Your task to perform on an android device: toggle show notifications on the lock screen Image 0: 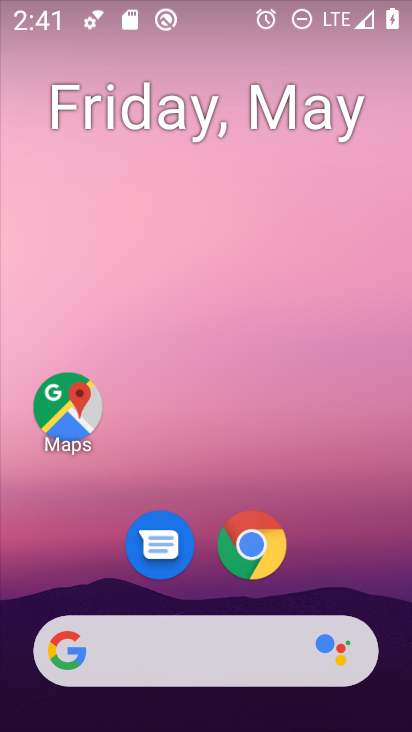
Step 0: drag from (333, 566) to (282, 284)
Your task to perform on an android device: toggle show notifications on the lock screen Image 1: 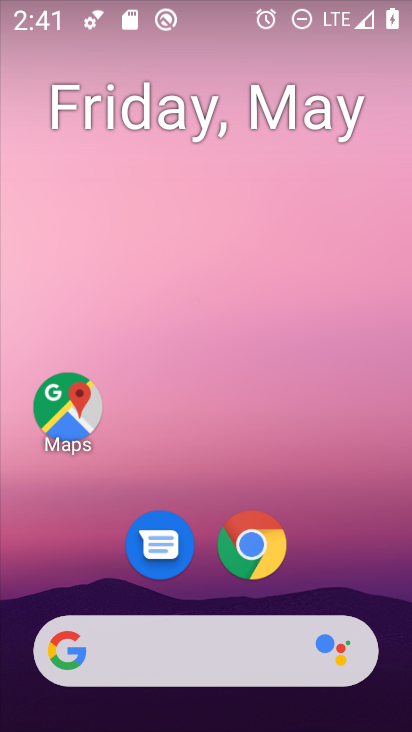
Step 1: drag from (322, 535) to (287, 204)
Your task to perform on an android device: toggle show notifications on the lock screen Image 2: 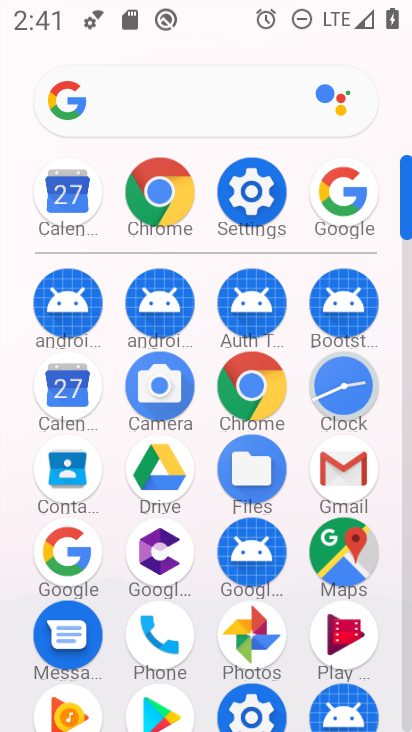
Step 2: click (236, 195)
Your task to perform on an android device: toggle show notifications on the lock screen Image 3: 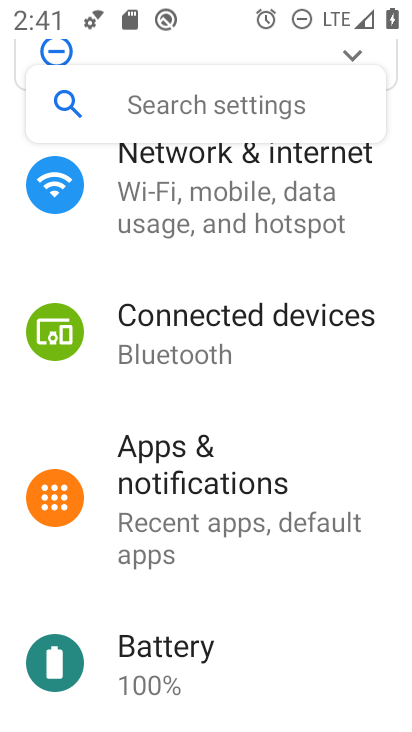
Step 3: drag from (236, 197) to (264, 263)
Your task to perform on an android device: toggle show notifications on the lock screen Image 4: 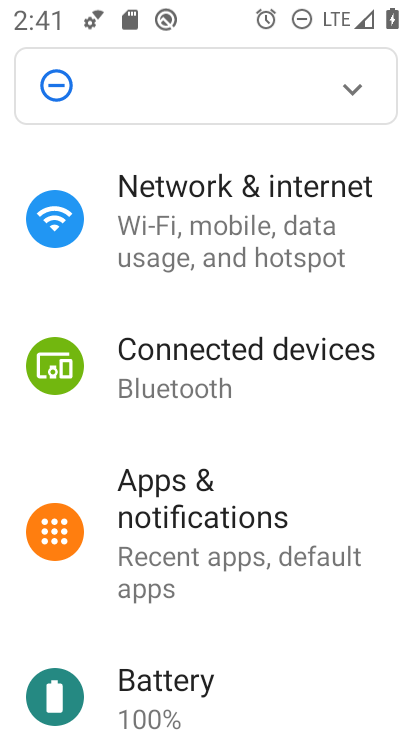
Step 4: click (179, 516)
Your task to perform on an android device: toggle show notifications on the lock screen Image 5: 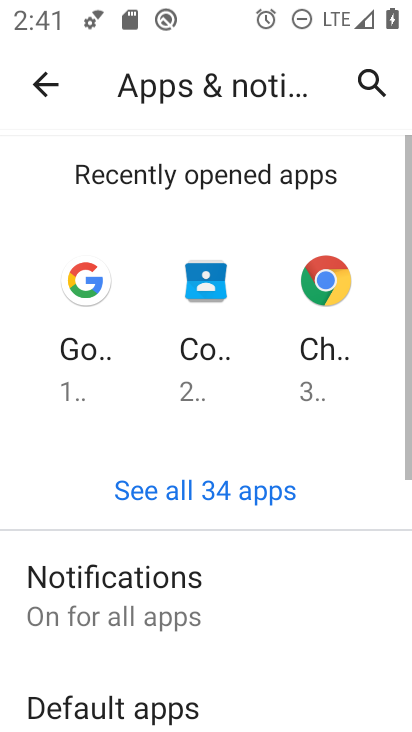
Step 5: click (155, 587)
Your task to perform on an android device: toggle show notifications on the lock screen Image 6: 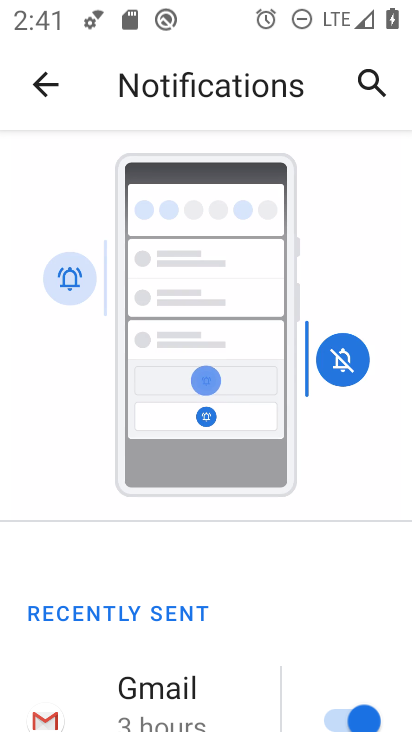
Step 6: drag from (258, 615) to (234, 208)
Your task to perform on an android device: toggle show notifications on the lock screen Image 7: 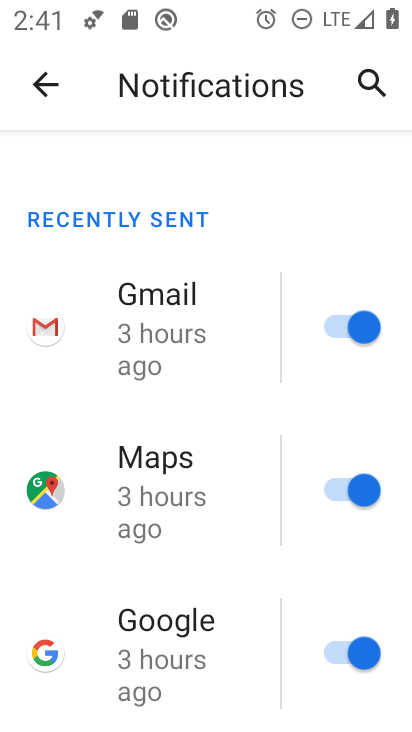
Step 7: drag from (202, 537) to (184, 181)
Your task to perform on an android device: toggle show notifications on the lock screen Image 8: 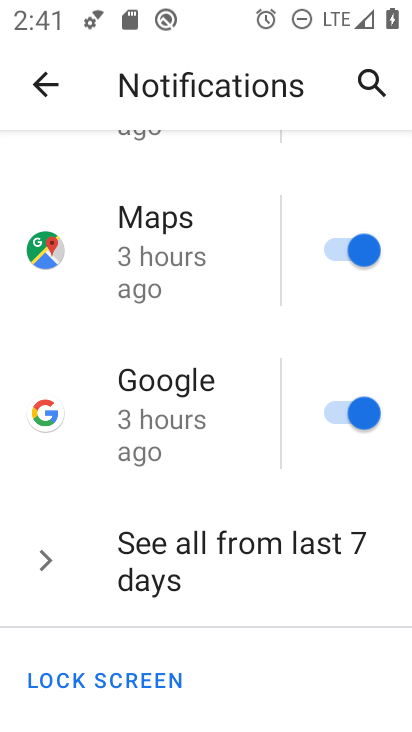
Step 8: drag from (190, 596) to (181, 266)
Your task to perform on an android device: toggle show notifications on the lock screen Image 9: 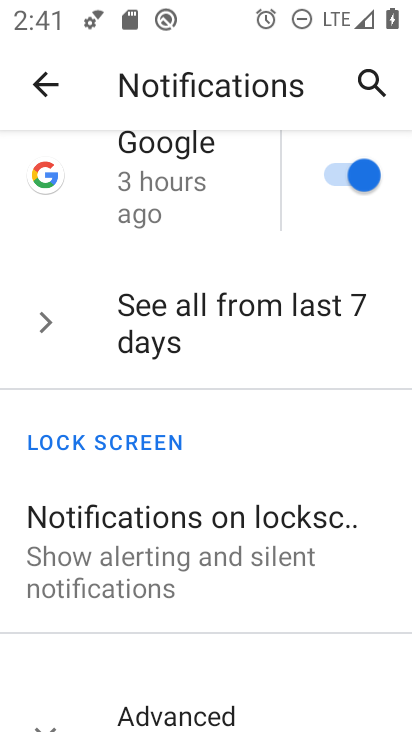
Step 9: click (164, 518)
Your task to perform on an android device: toggle show notifications on the lock screen Image 10: 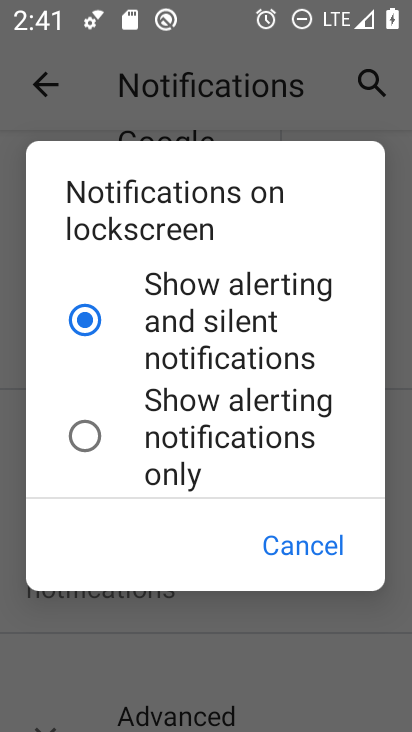
Step 10: drag from (158, 443) to (166, 262)
Your task to perform on an android device: toggle show notifications on the lock screen Image 11: 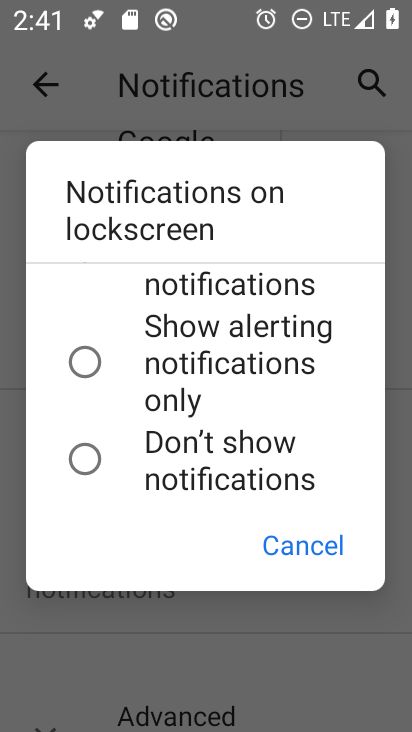
Step 11: click (175, 464)
Your task to perform on an android device: toggle show notifications on the lock screen Image 12: 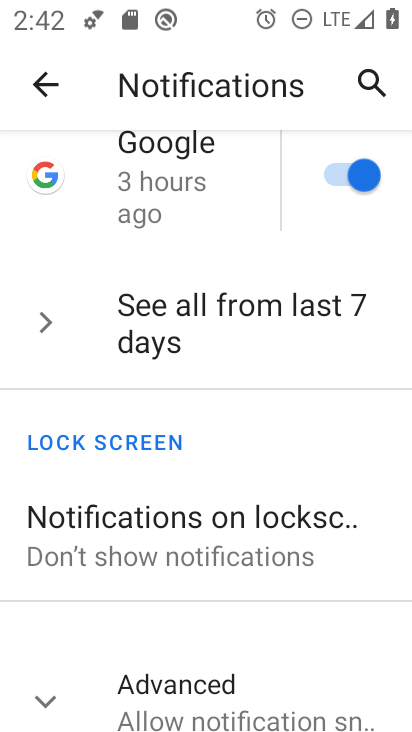
Step 12: task complete